Your task to perform on an android device: toggle sleep mode Image 0: 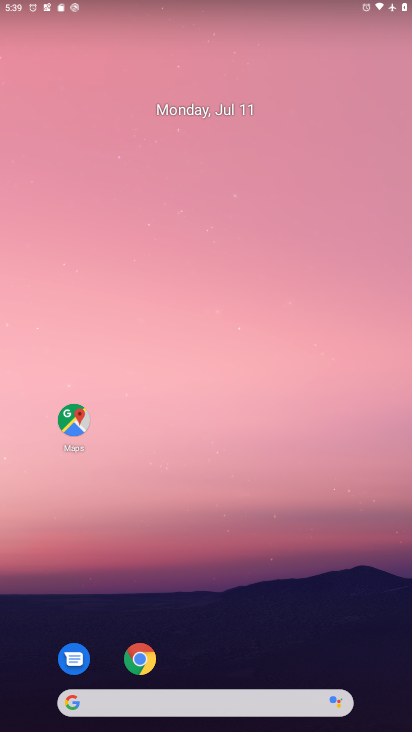
Step 0: drag from (383, 654) to (312, 15)
Your task to perform on an android device: toggle sleep mode Image 1: 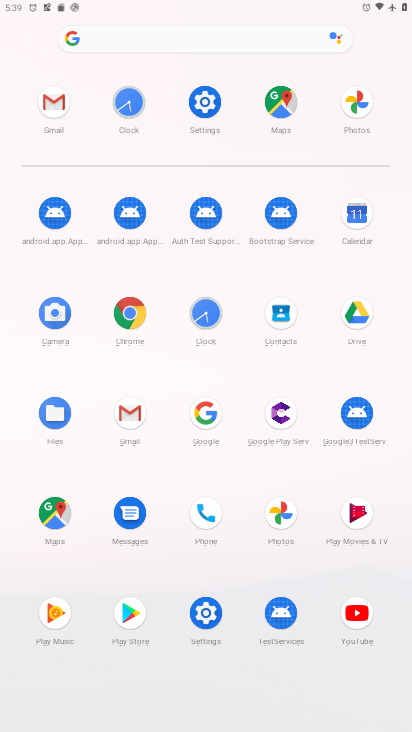
Step 1: click (205, 612)
Your task to perform on an android device: toggle sleep mode Image 2: 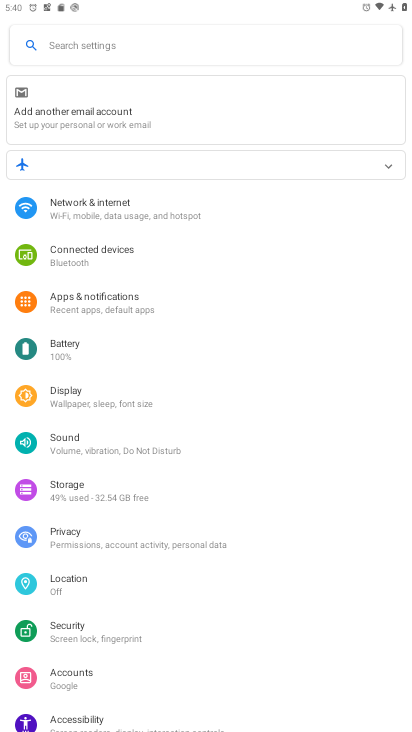
Step 2: click (76, 398)
Your task to perform on an android device: toggle sleep mode Image 3: 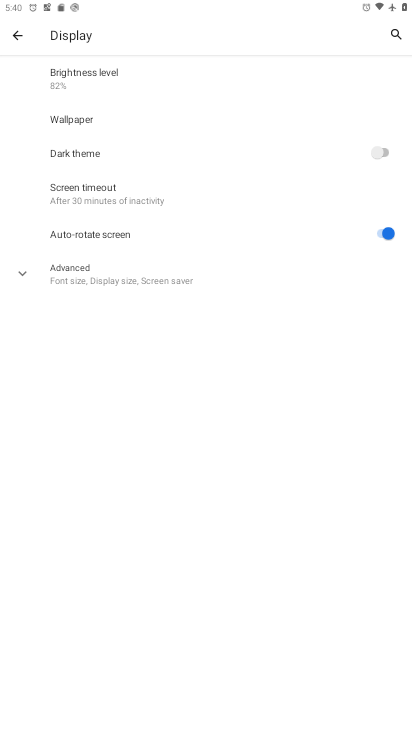
Step 3: click (18, 267)
Your task to perform on an android device: toggle sleep mode Image 4: 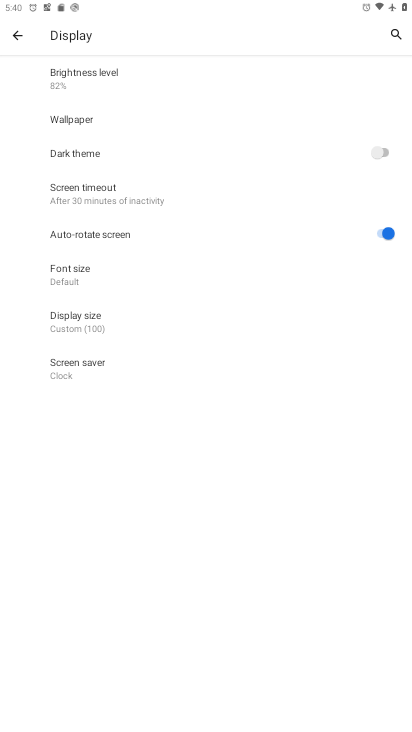
Step 4: task complete